Your task to perform on an android device: turn on data saver in the chrome app Image 0: 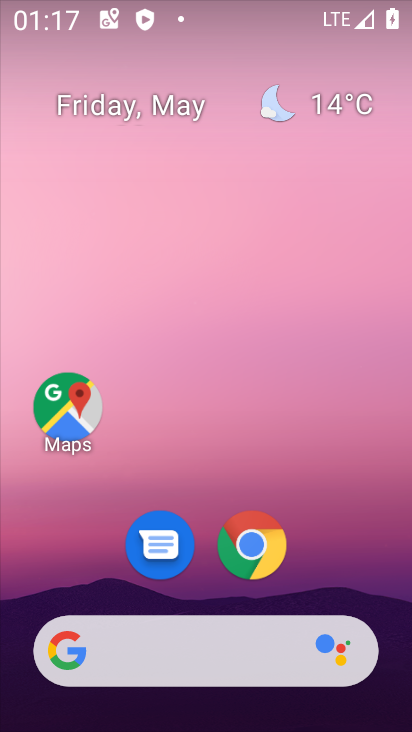
Step 0: click (241, 547)
Your task to perform on an android device: turn on data saver in the chrome app Image 1: 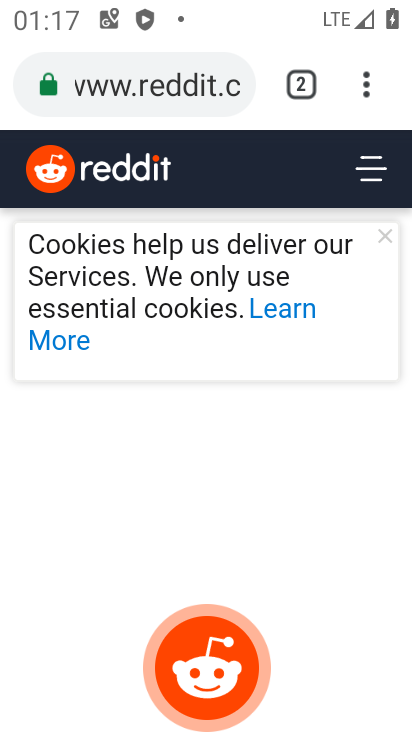
Step 1: click (362, 105)
Your task to perform on an android device: turn on data saver in the chrome app Image 2: 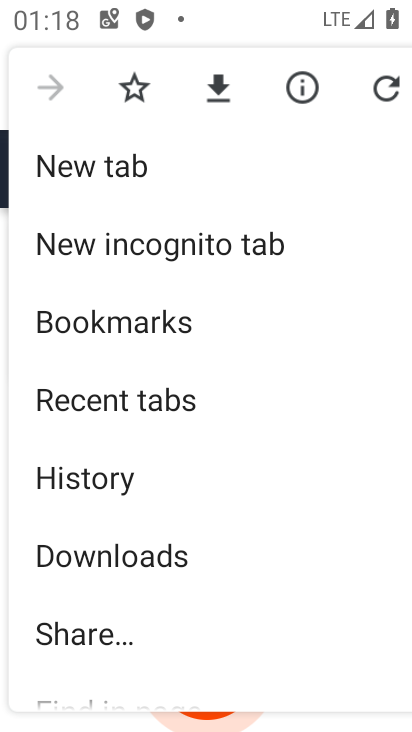
Step 2: drag from (172, 585) to (148, 318)
Your task to perform on an android device: turn on data saver in the chrome app Image 3: 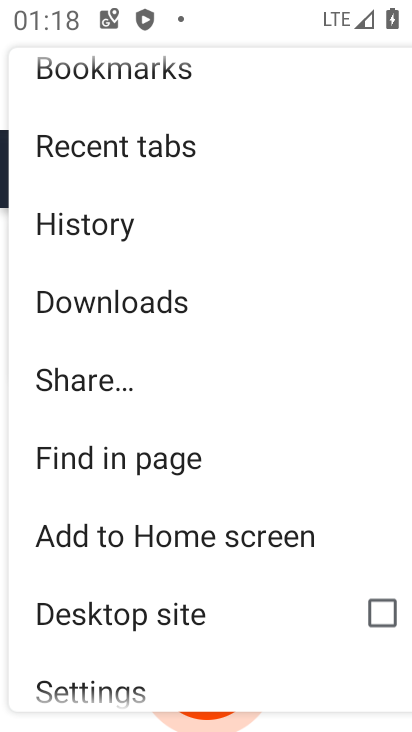
Step 3: drag from (130, 658) to (146, 266)
Your task to perform on an android device: turn on data saver in the chrome app Image 4: 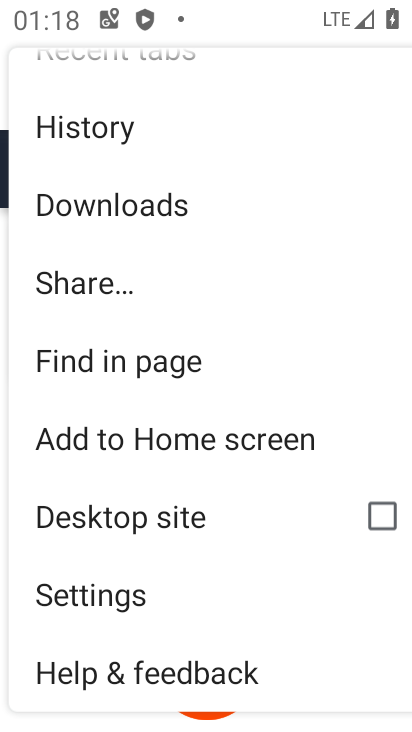
Step 4: click (113, 605)
Your task to perform on an android device: turn on data saver in the chrome app Image 5: 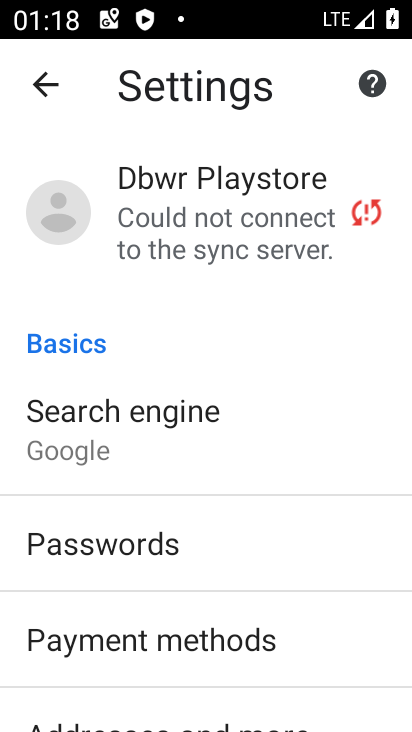
Step 5: drag from (149, 656) to (189, 320)
Your task to perform on an android device: turn on data saver in the chrome app Image 6: 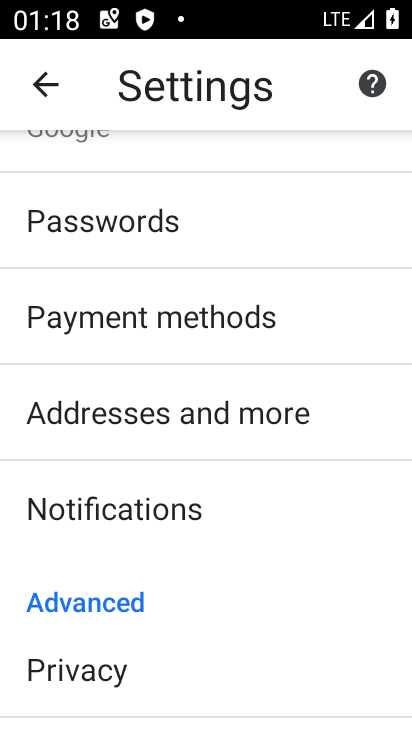
Step 6: drag from (186, 613) to (202, 372)
Your task to perform on an android device: turn on data saver in the chrome app Image 7: 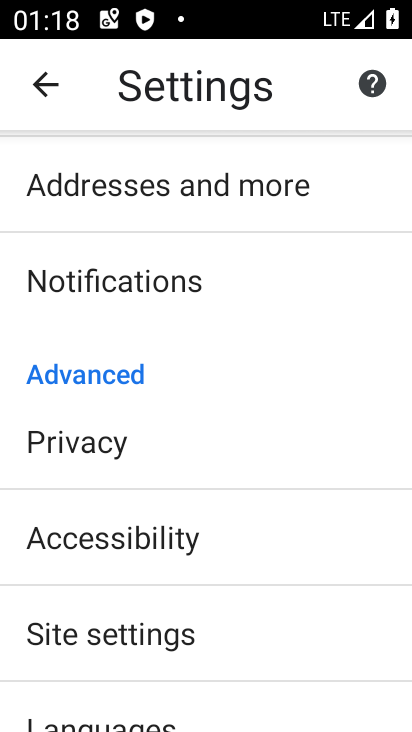
Step 7: drag from (197, 641) to (223, 394)
Your task to perform on an android device: turn on data saver in the chrome app Image 8: 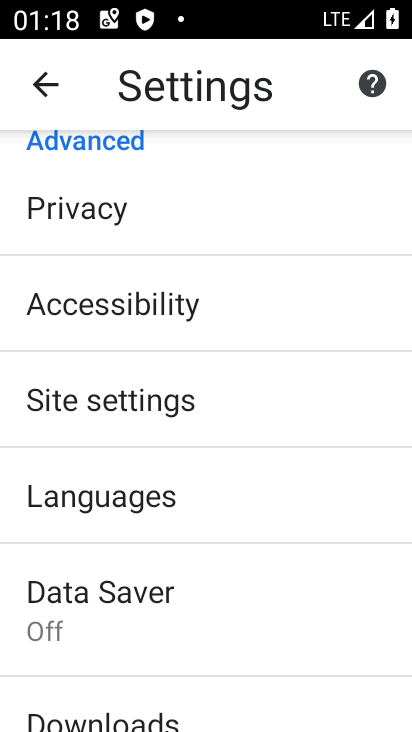
Step 8: click (126, 592)
Your task to perform on an android device: turn on data saver in the chrome app Image 9: 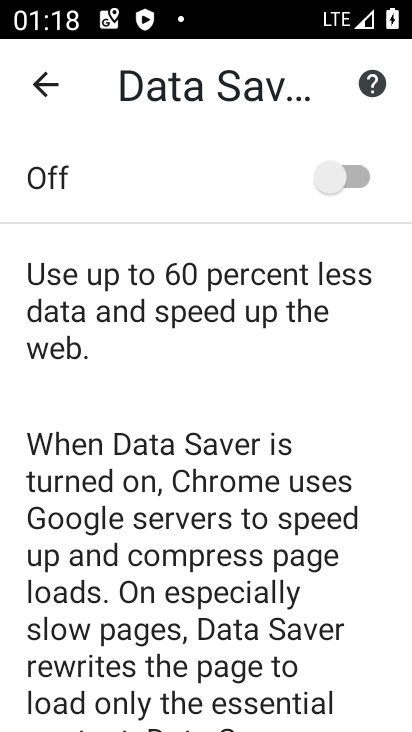
Step 9: click (366, 180)
Your task to perform on an android device: turn on data saver in the chrome app Image 10: 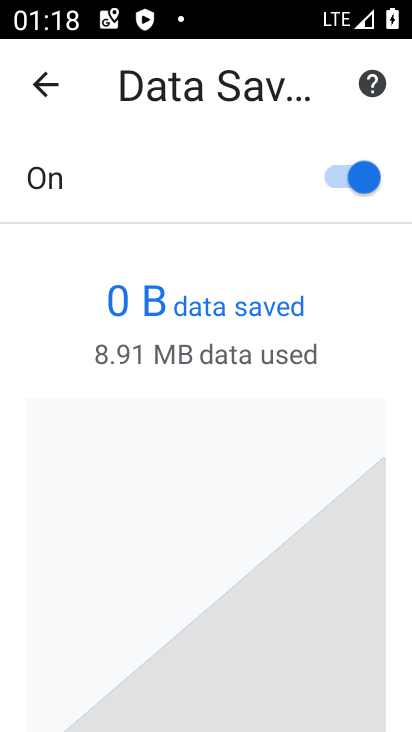
Step 10: task complete